Your task to perform on an android device: View the shopping cart on newegg. Image 0: 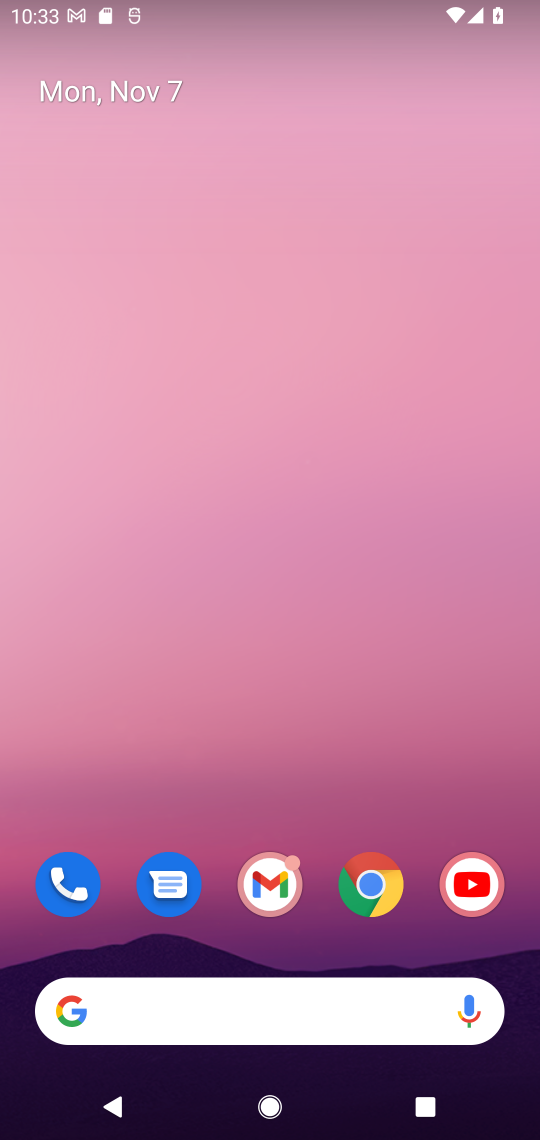
Step 0: click (380, 900)
Your task to perform on an android device: View the shopping cart on newegg. Image 1: 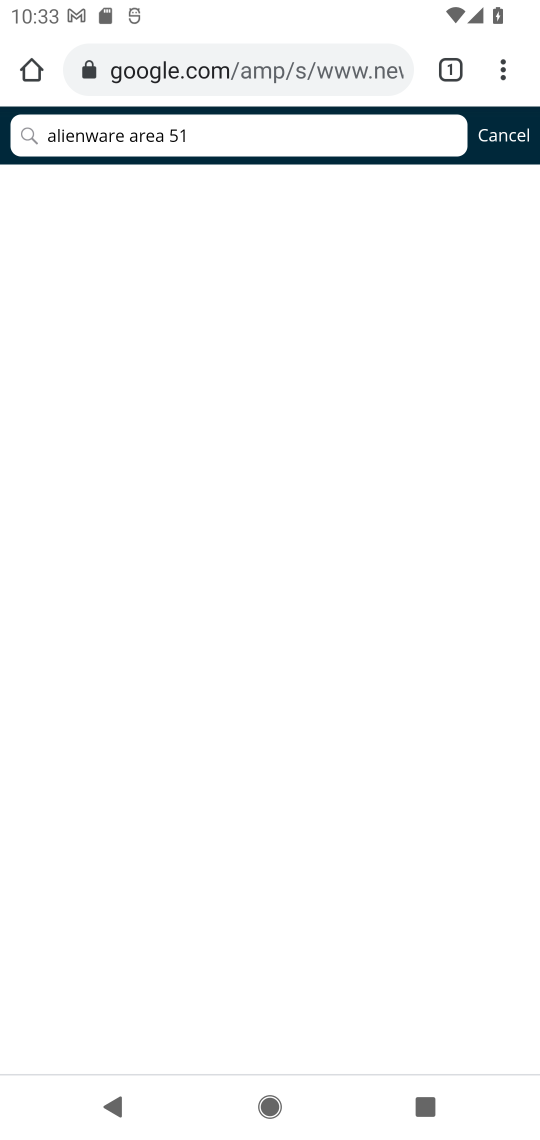
Step 1: click (29, 70)
Your task to perform on an android device: View the shopping cart on newegg. Image 2: 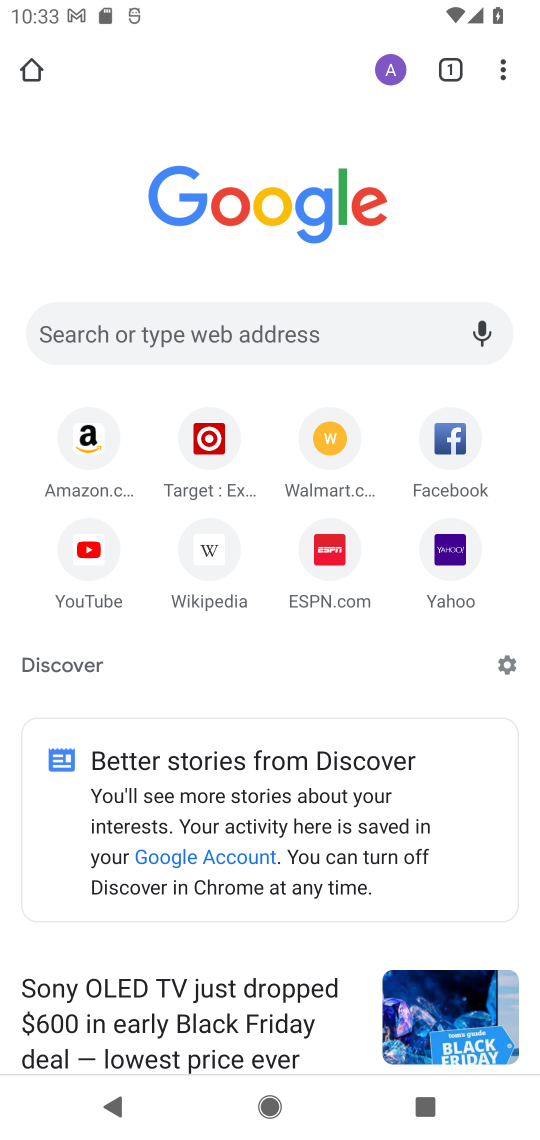
Step 2: click (342, 327)
Your task to perform on an android device: View the shopping cart on newegg. Image 3: 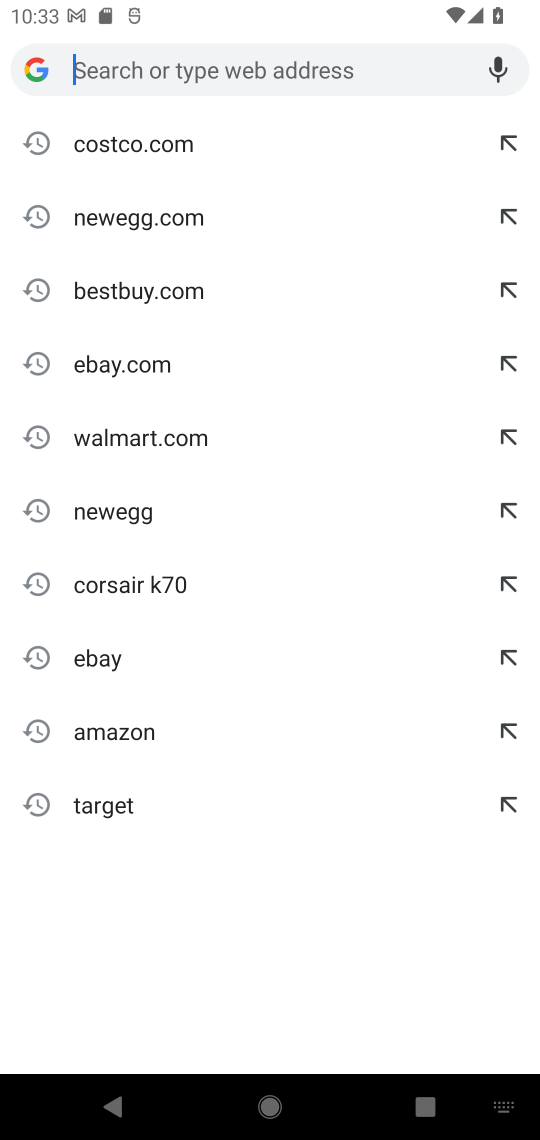
Step 3: click (123, 221)
Your task to perform on an android device: View the shopping cart on newegg. Image 4: 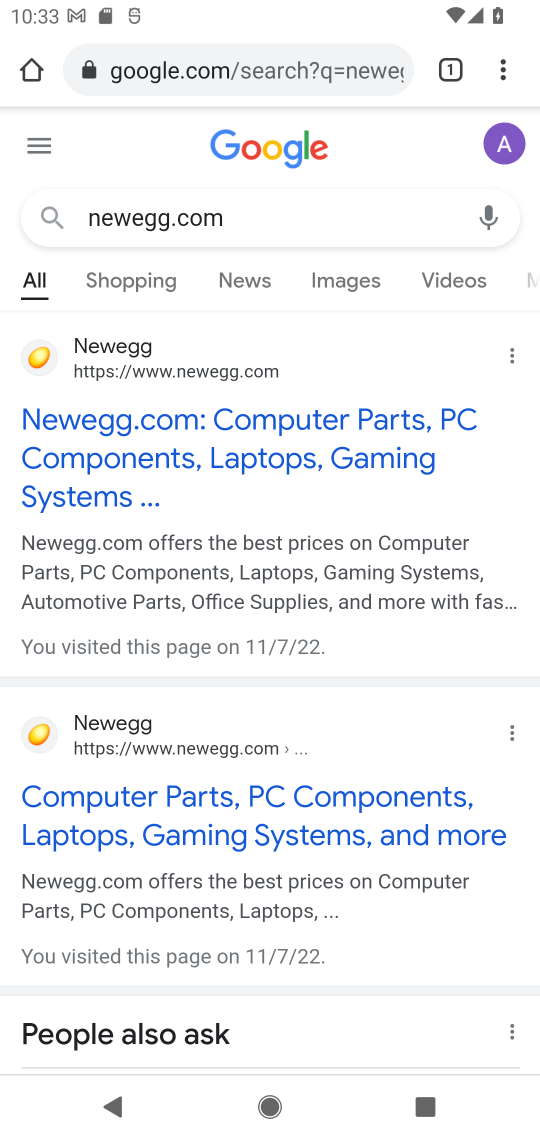
Step 4: click (219, 755)
Your task to perform on an android device: View the shopping cart on newegg. Image 5: 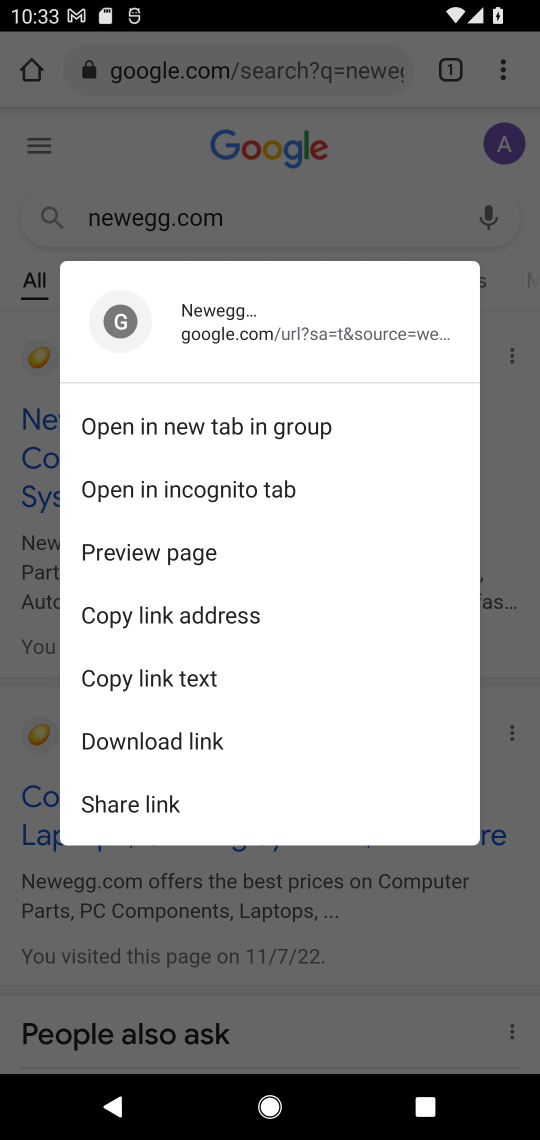
Step 5: click (332, 907)
Your task to perform on an android device: View the shopping cart on newegg. Image 6: 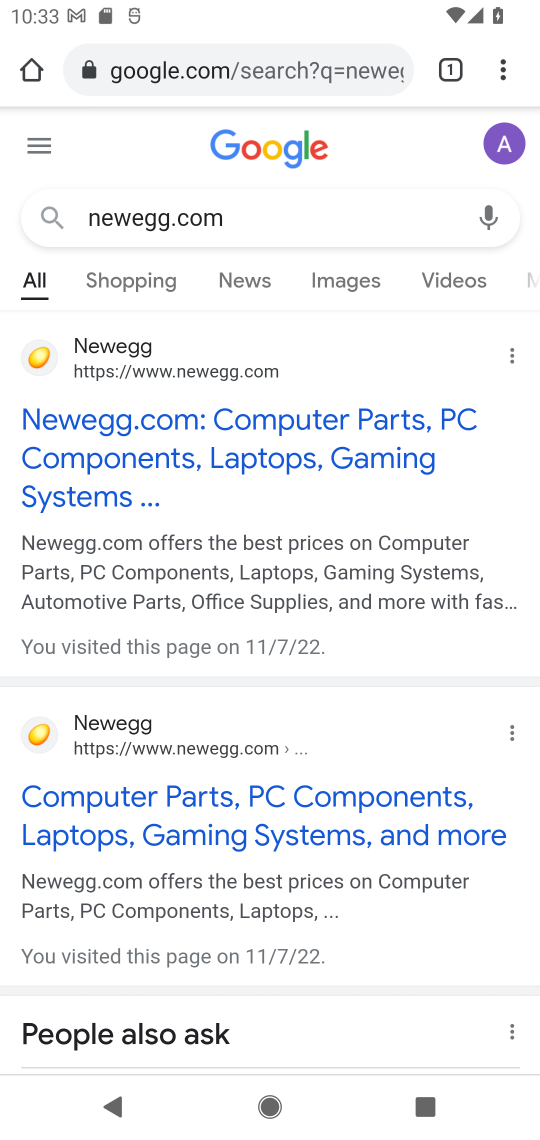
Step 6: click (242, 747)
Your task to perform on an android device: View the shopping cart on newegg. Image 7: 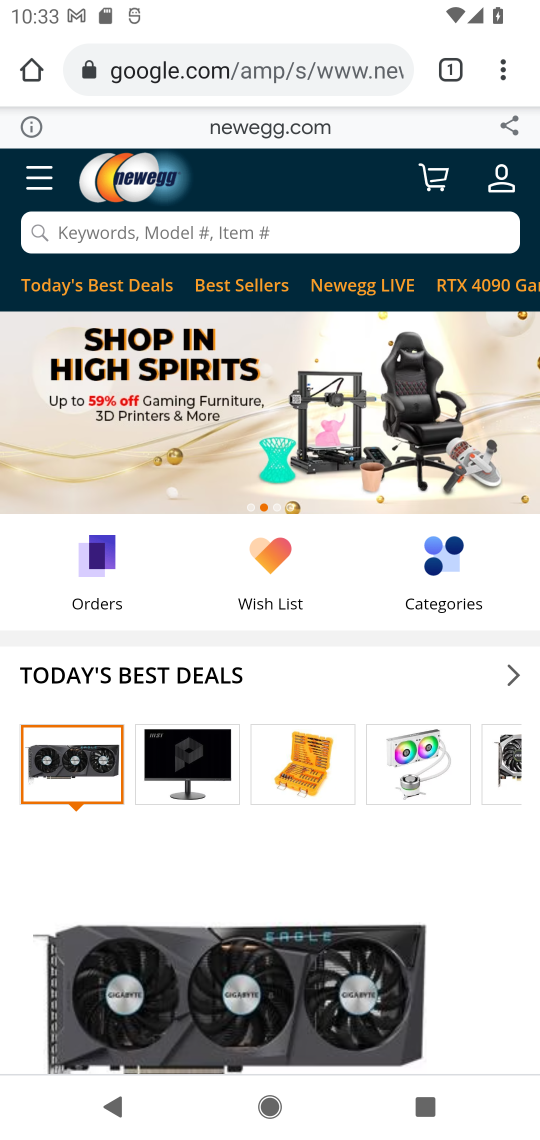
Step 7: click (432, 177)
Your task to perform on an android device: View the shopping cart on newegg. Image 8: 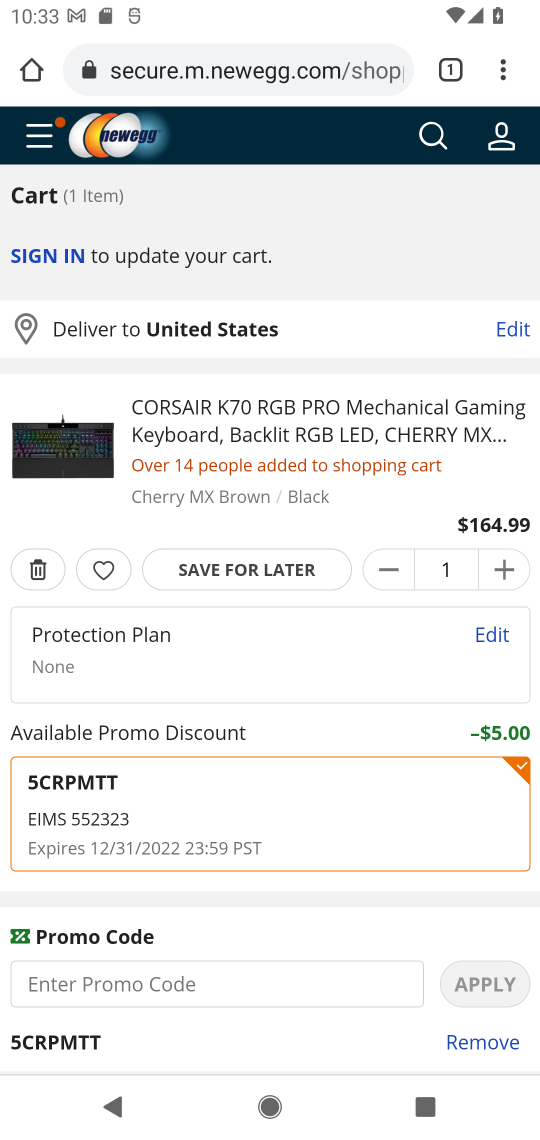
Step 8: task complete